Your task to perform on an android device: Go to wifi settings Image 0: 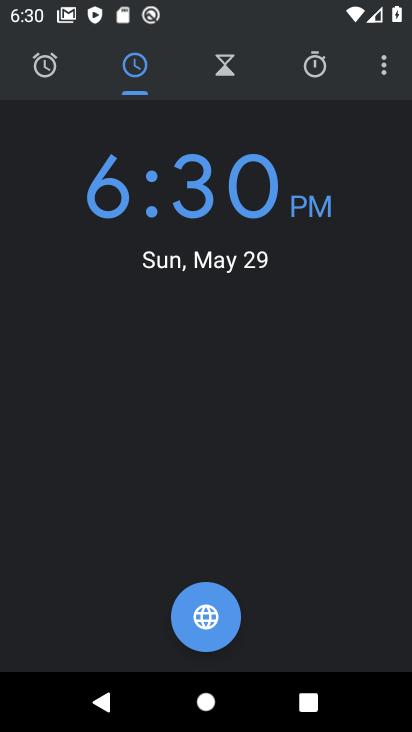
Step 0: press home button
Your task to perform on an android device: Go to wifi settings Image 1: 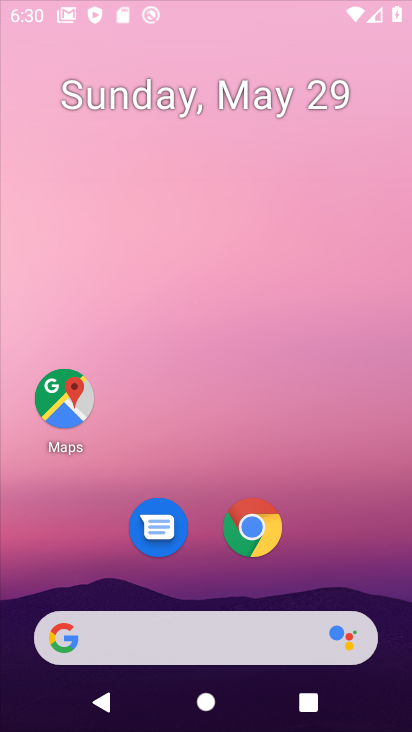
Step 1: drag from (369, 538) to (212, 56)
Your task to perform on an android device: Go to wifi settings Image 2: 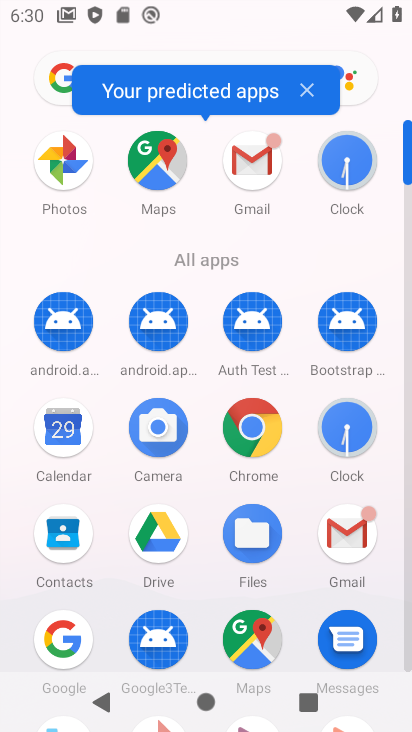
Step 2: drag from (142, 621) to (66, 166)
Your task to perform on an android device: Go to wifi settings Image 3: 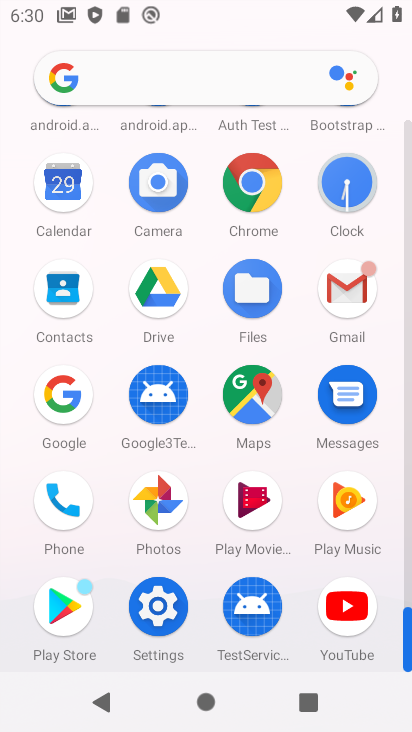
Step 3: click (173, 605)
Your task to perform on an android device: Go to wifi settings Image 4: 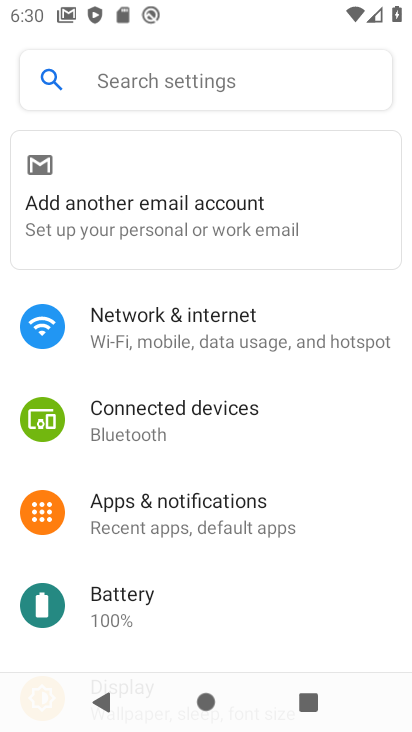
Step 4: click (116, 190)
Your task to perform on an android device: Go to wifi settings Image 5: 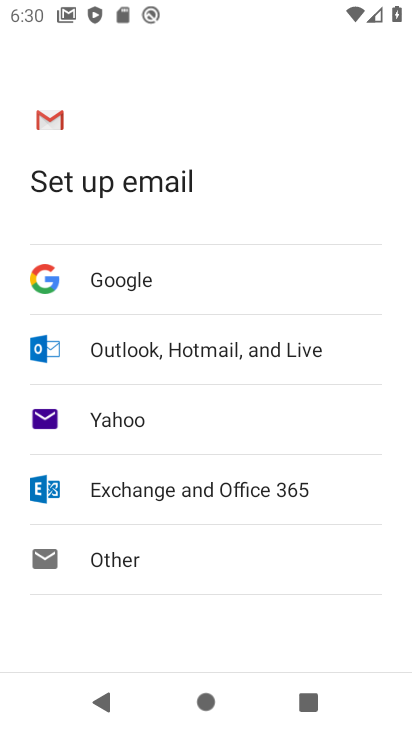
Step 5: press back button
Your task to perform on an android device: Go to wifi settings Image 6: 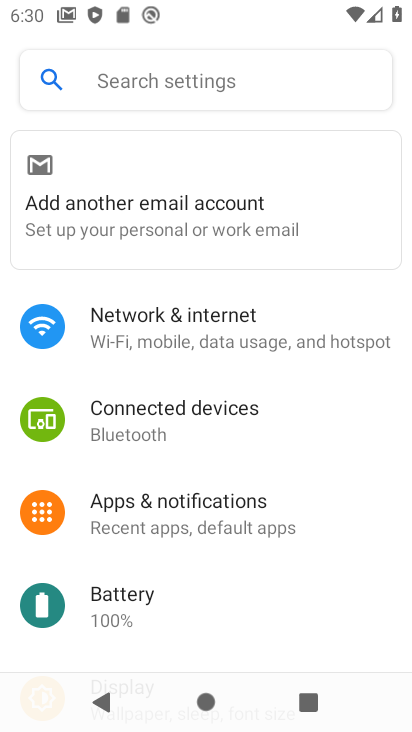
Step 6: click (231, 350)
Your task to perform on an android device: Go to wifi settings Image 7: 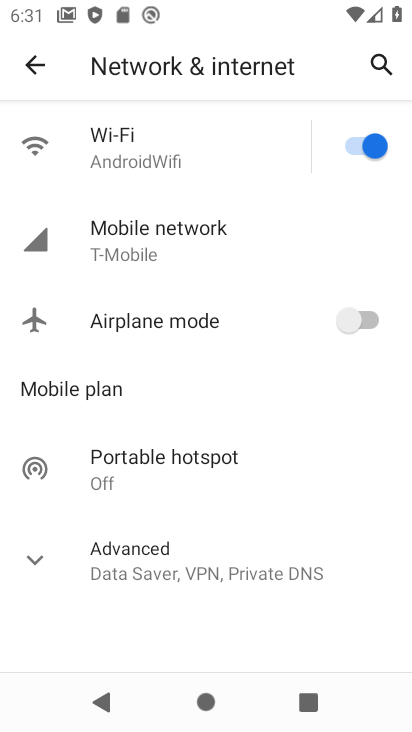
Step 7: click (114, 144)
Your task to perform on an android device: Go to wifi settings Image 8: 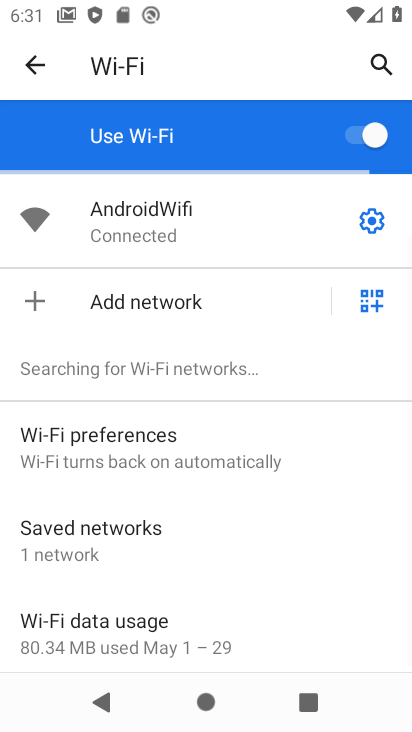
Step 8: task complete